Your task to perform on an android device: Open Wikipedia Image 0: 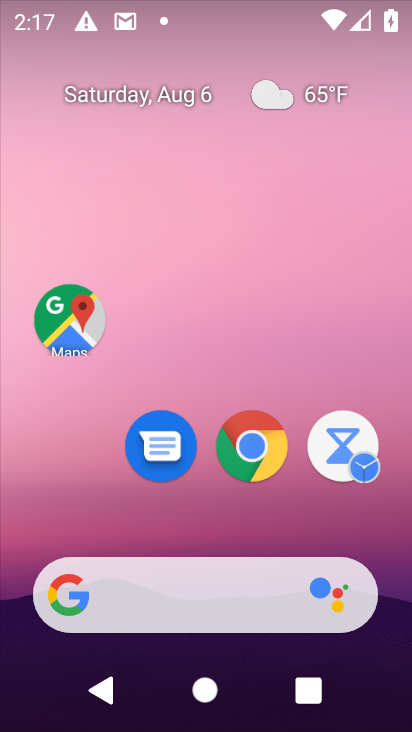
Step 0: drag from (221, 421) to (250, 298)
Your task to perform on an android device: Open Wikipedia Image 1: 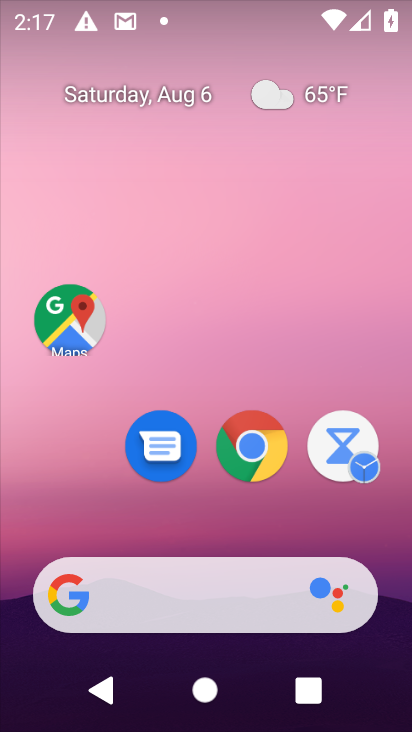
Step 1: click (214, 281)
Your task to perform on an android device: Open Wikipedia Image 2: 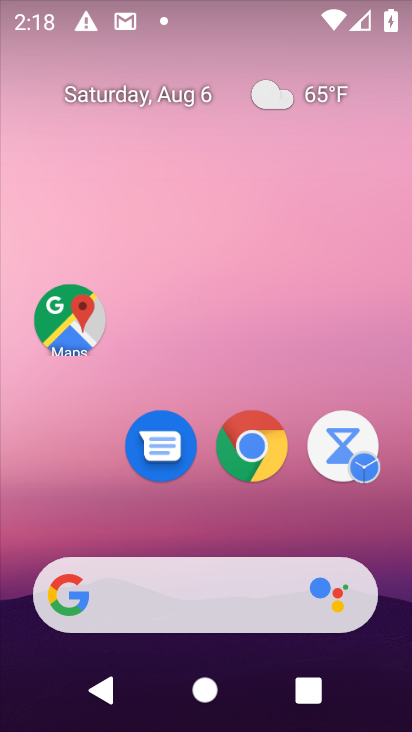
Step 2: drag from (262, 534) to (219, 95)
Your task to perform on an android device: Open Wikipedia Image 3: 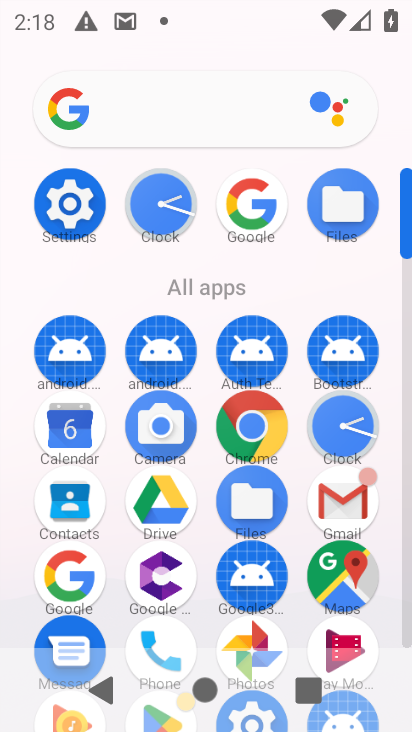
Step 3: drag from (272, 508) to (160, 25)
Your task to perform on an android device: Open Wikipedia Image 4: 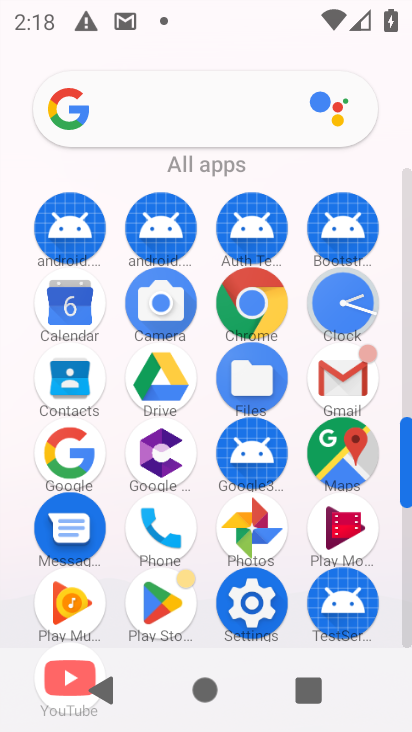
Step 4: click (249, 293)
Your task to perform on an android device: Open Wikipedia Image 5: 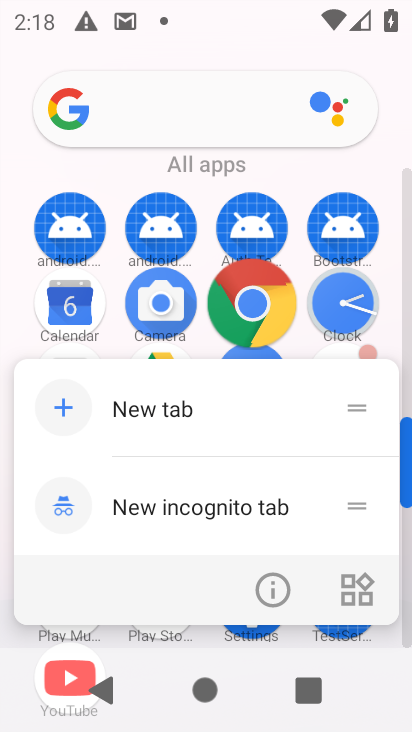
Step 5: click (254, 301)
Your task to perform on an android device: Open Wikipedia Image 6: 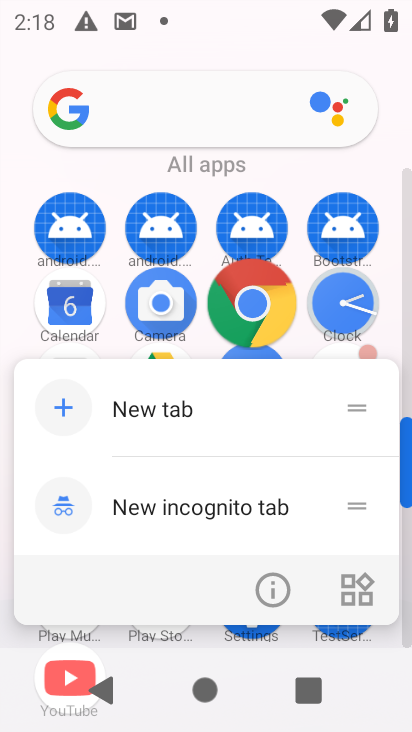
Step 6: click (252, 300)
Your task to perform on an android device: Open Wikipedia Image 7: 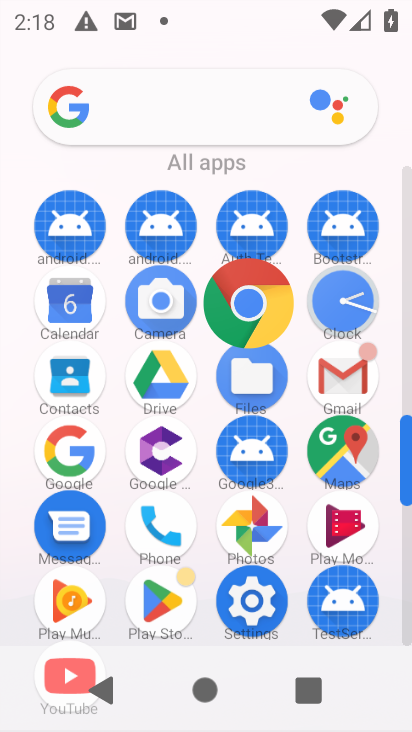
Step 7: click (254, 298)
Your task to perform on an android device: Open Wikipedia Image 8: 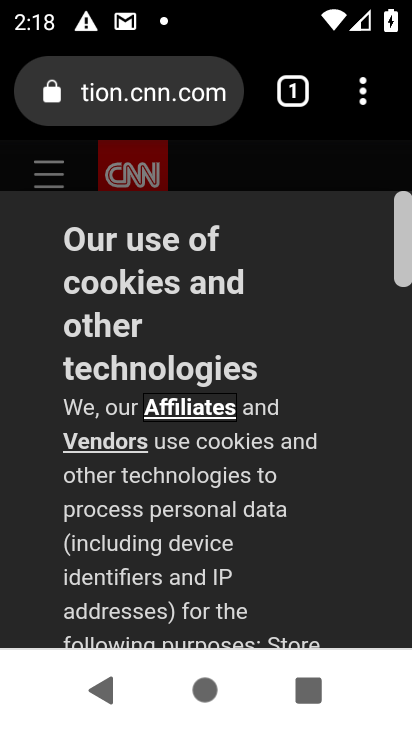
Step 8: click (367, 87)
Your task to perform on an android device: Open Wikipedia Image 9: 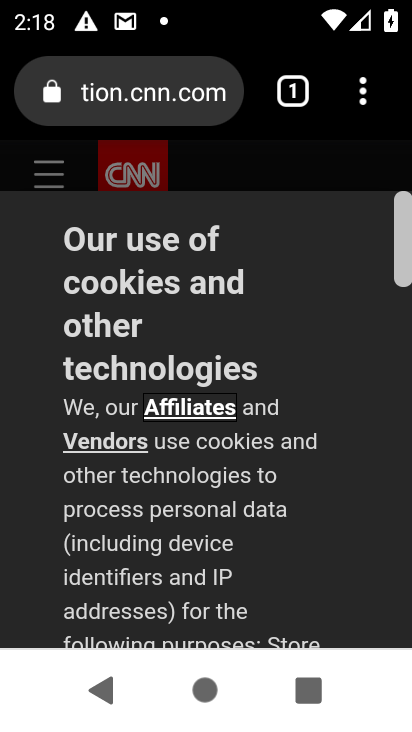
Step 9: click (369, 87)
Your task to perform on an android device: Open Wikipedia Image 10: 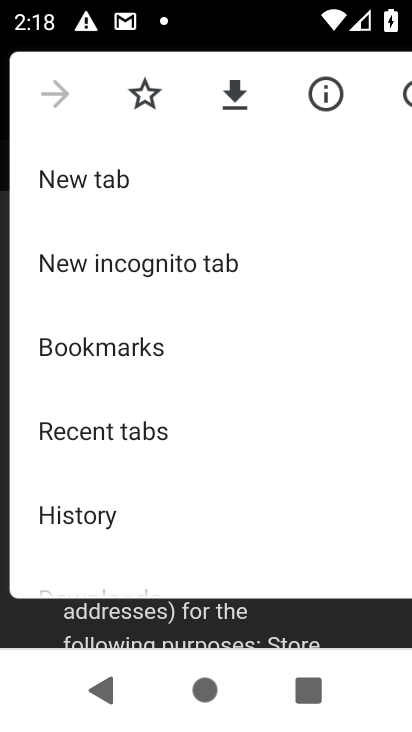
Step 10: click (83, 170)
Your task to perform on an android device: Open Wikipedia Image 11: 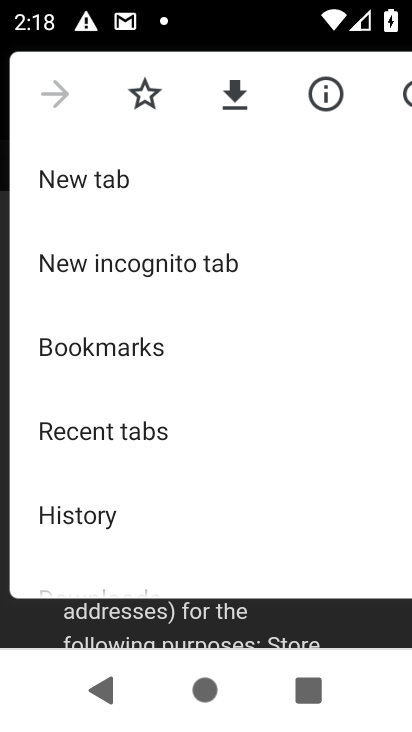
Step 11: click (83, 176)
Your task to perform on an android device: Open Wikipedia Image 12: 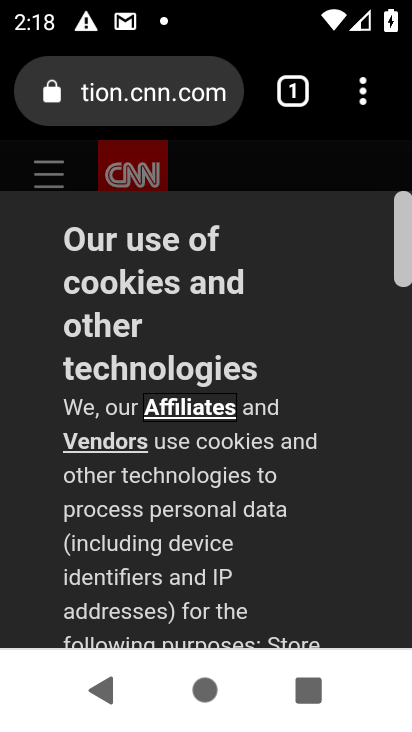
Step 12: click (87, 180)
Your task to perform on an android device: Open Wikipedia Image 13: 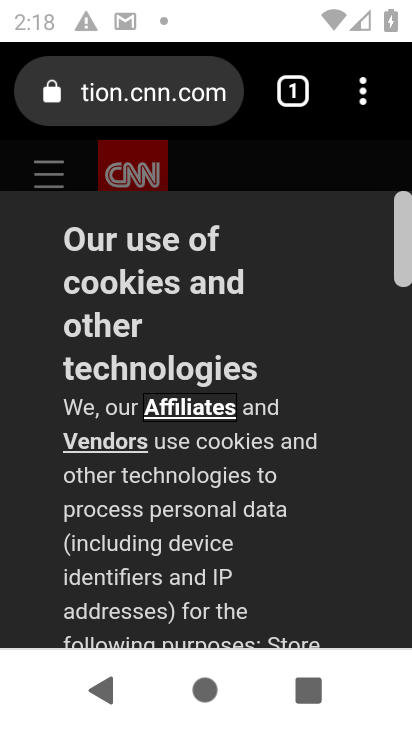
Step 13: click (87, 180)
Your task to perform on an android device: Open Wikipedia Image 14: 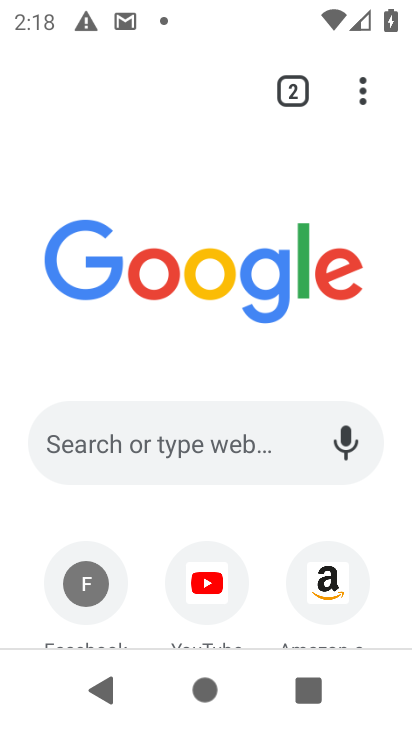
Step 14: drag from (232, 553) to (151, 56)
Your task to perform on an android device: Open Wikipedia Image 15: 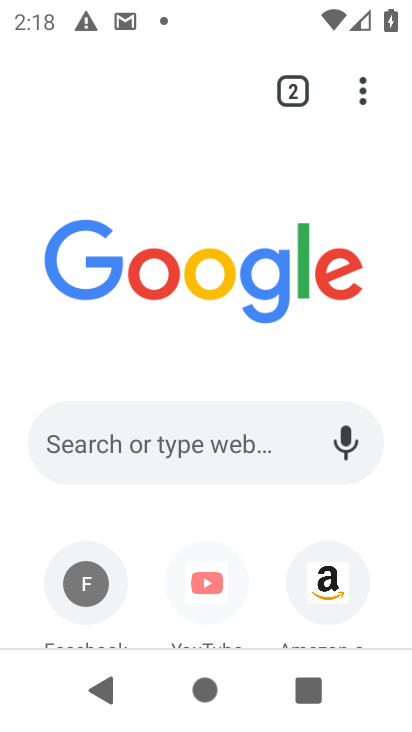
Step 15: drag from (180, 496) to (156, 119)
Your task to perform on an android device: Open Wikipedia Image 16: 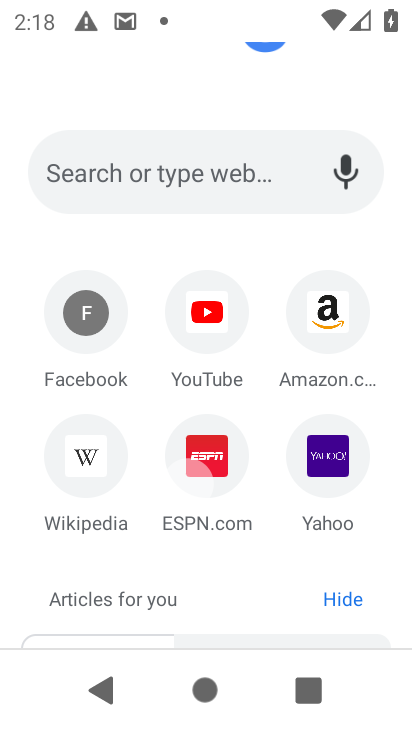
Step 16: drag from (176, 473) to (166, 105)
Your task to perform on an android device: Open Wikipedia Image 17: 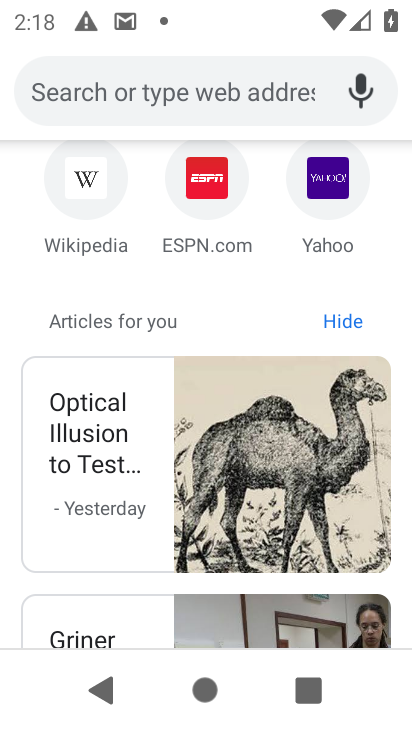
Step 17: click (87, 189)
Your task to perform on an android device: Open Wikipedia Image 18: 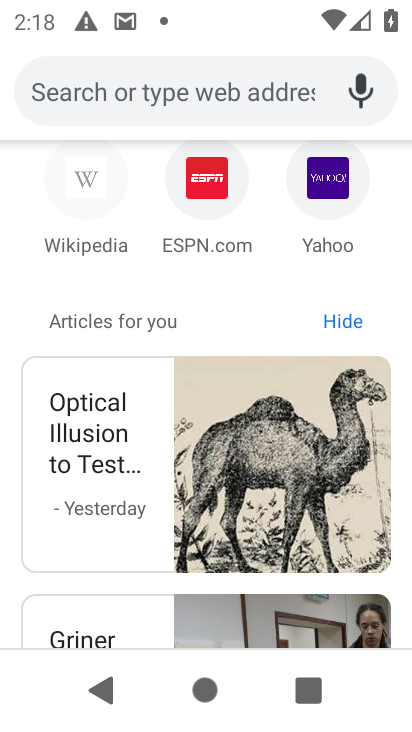
Step 18: click (86, 188)
Your task to perform on an android device: Open Wikipedia Image 19: 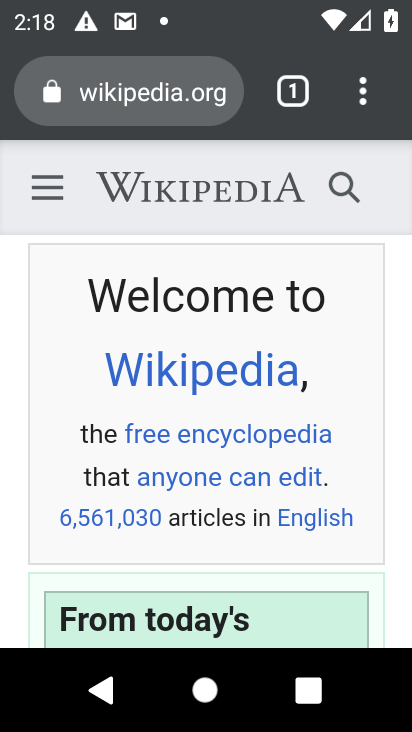
Step 19: task complete